Your task to perform on an android device: Search for the best rated TV on Target Image 0: 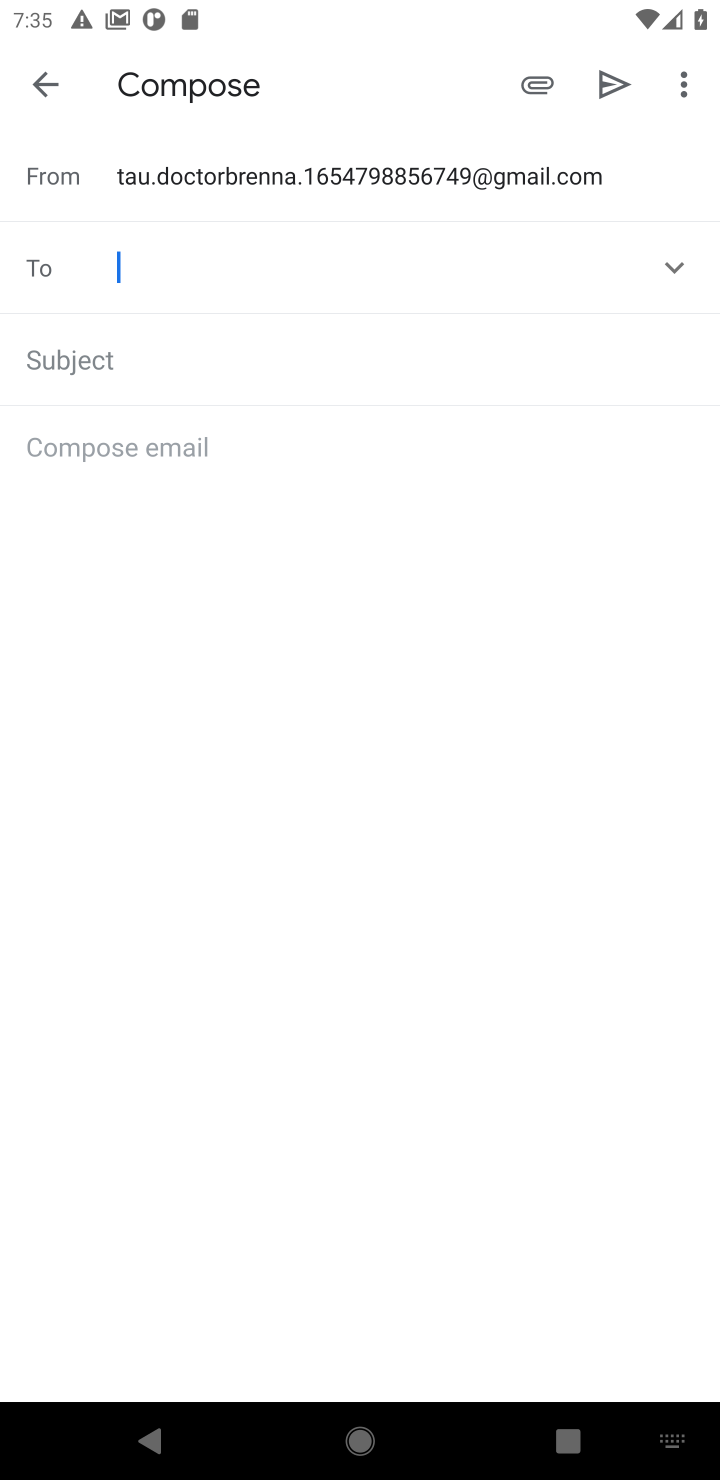
Step 0: press home button
Your task to perform on an android device: Search for the best rated TV on Target Image 1: 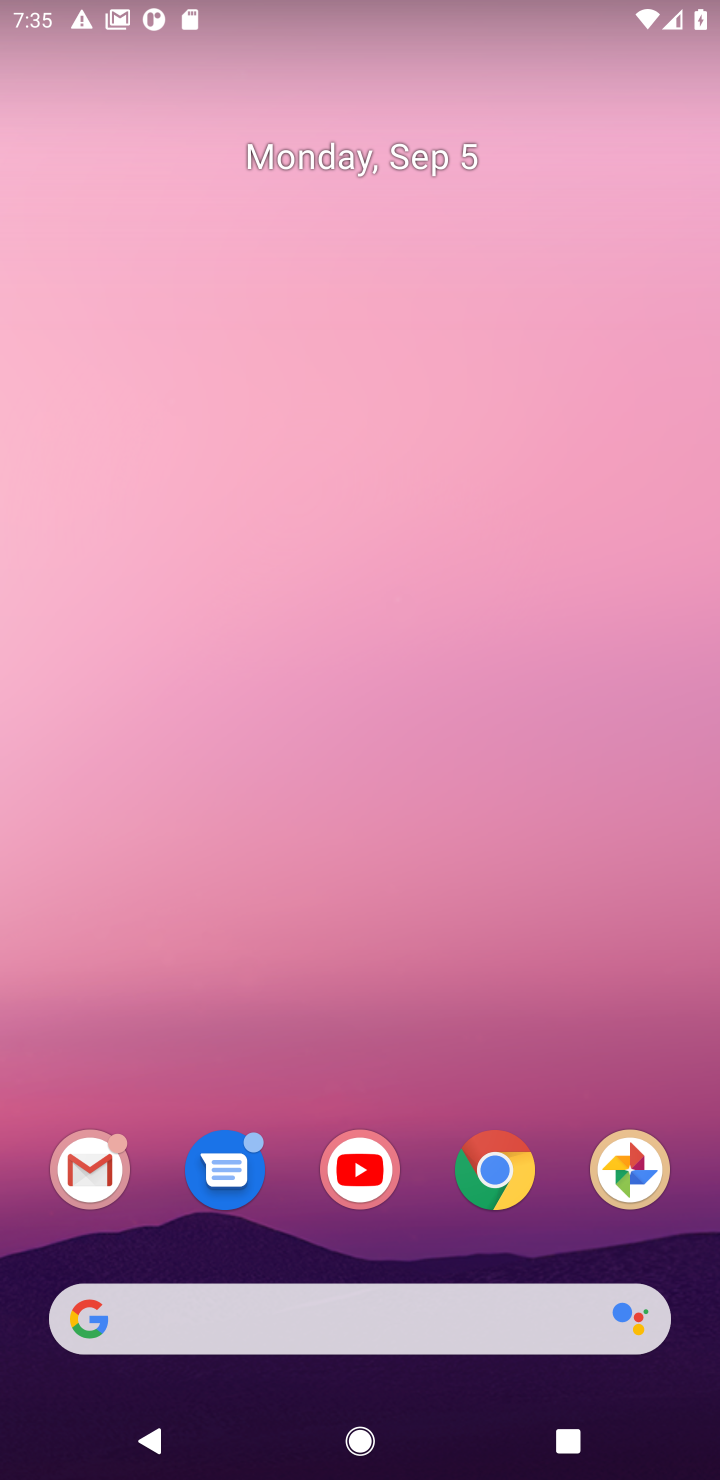
Step 1: click (499, 1157)
Your task to perform on an android device: Search for the best rated TV on Target Image 2: 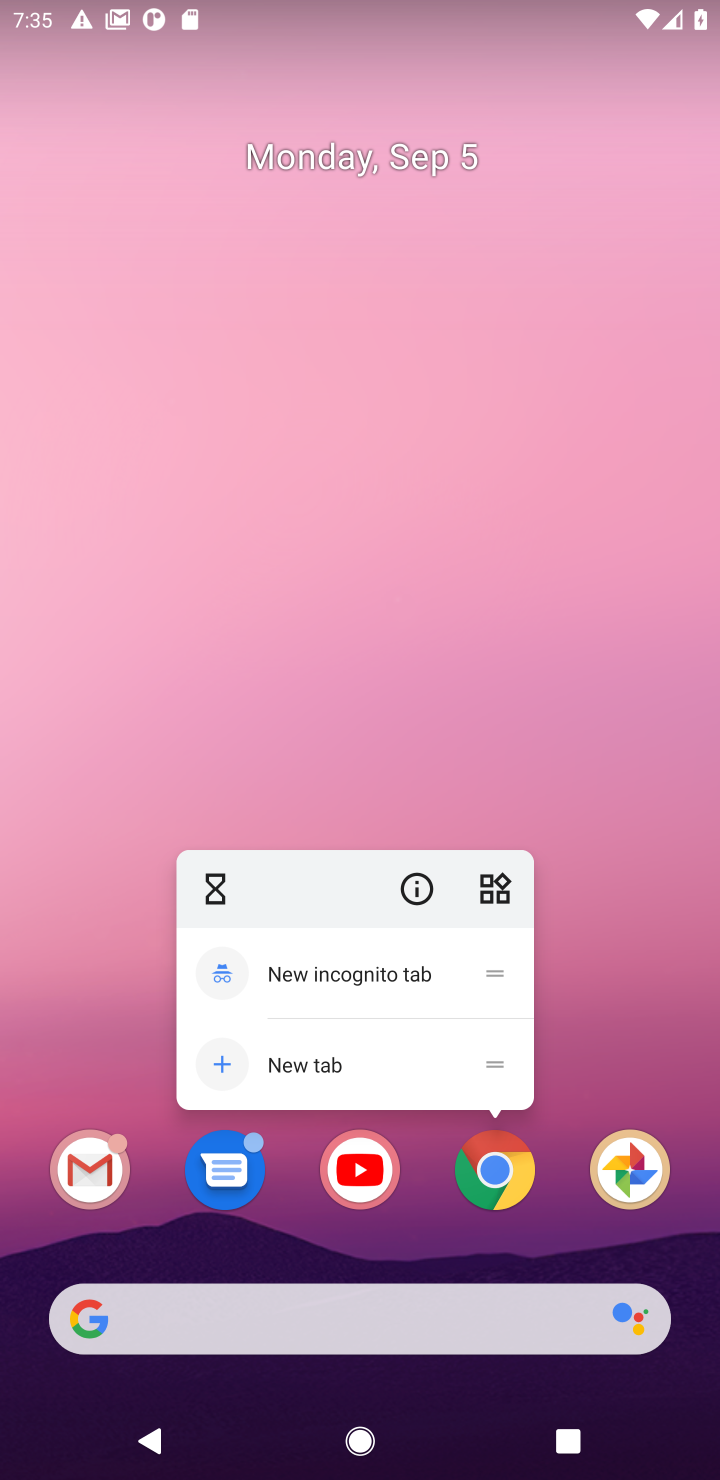
Step 2: click (499, 1169)
Your task to perform on an android device: Search for the best rated TV on Target Image 3: 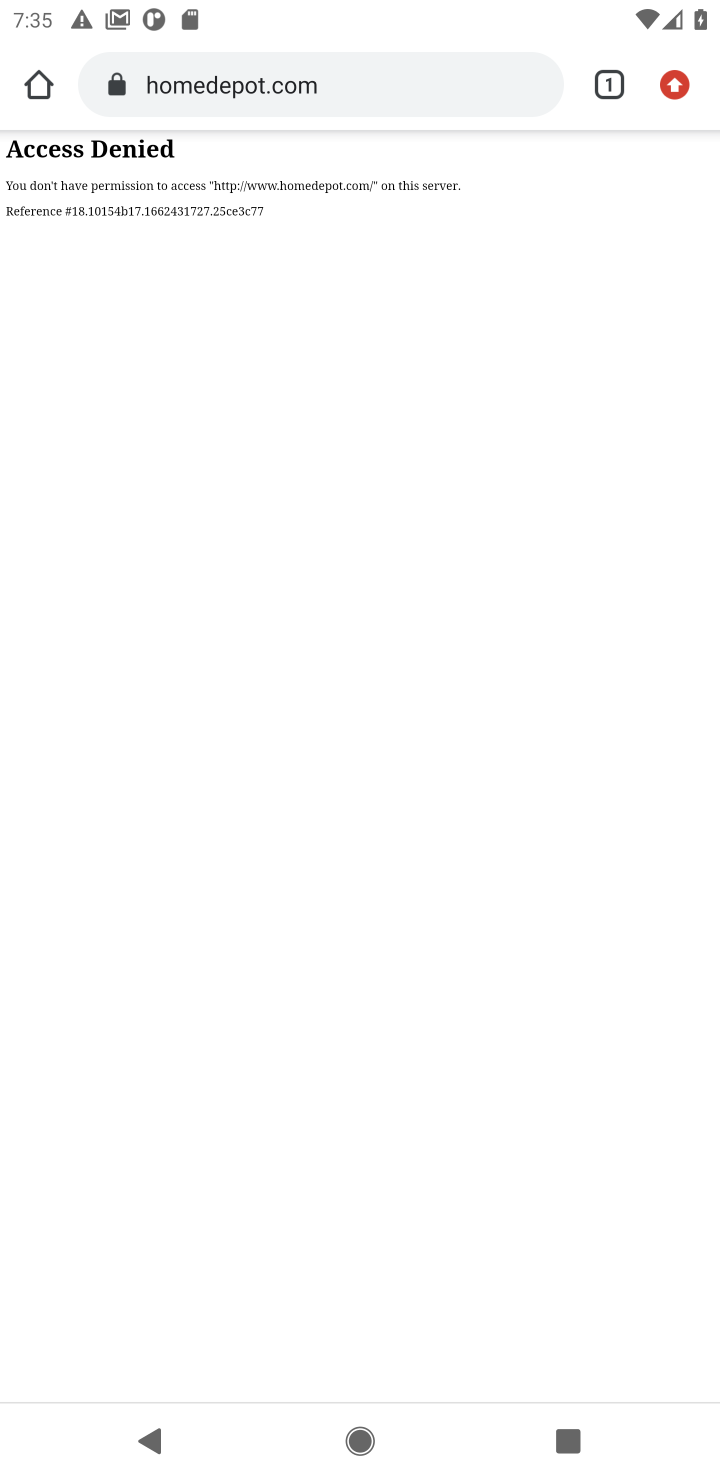
Step 3: click (240, 57)
Your task to perform on an android device: Search for the best rated TV on Target Image 4: 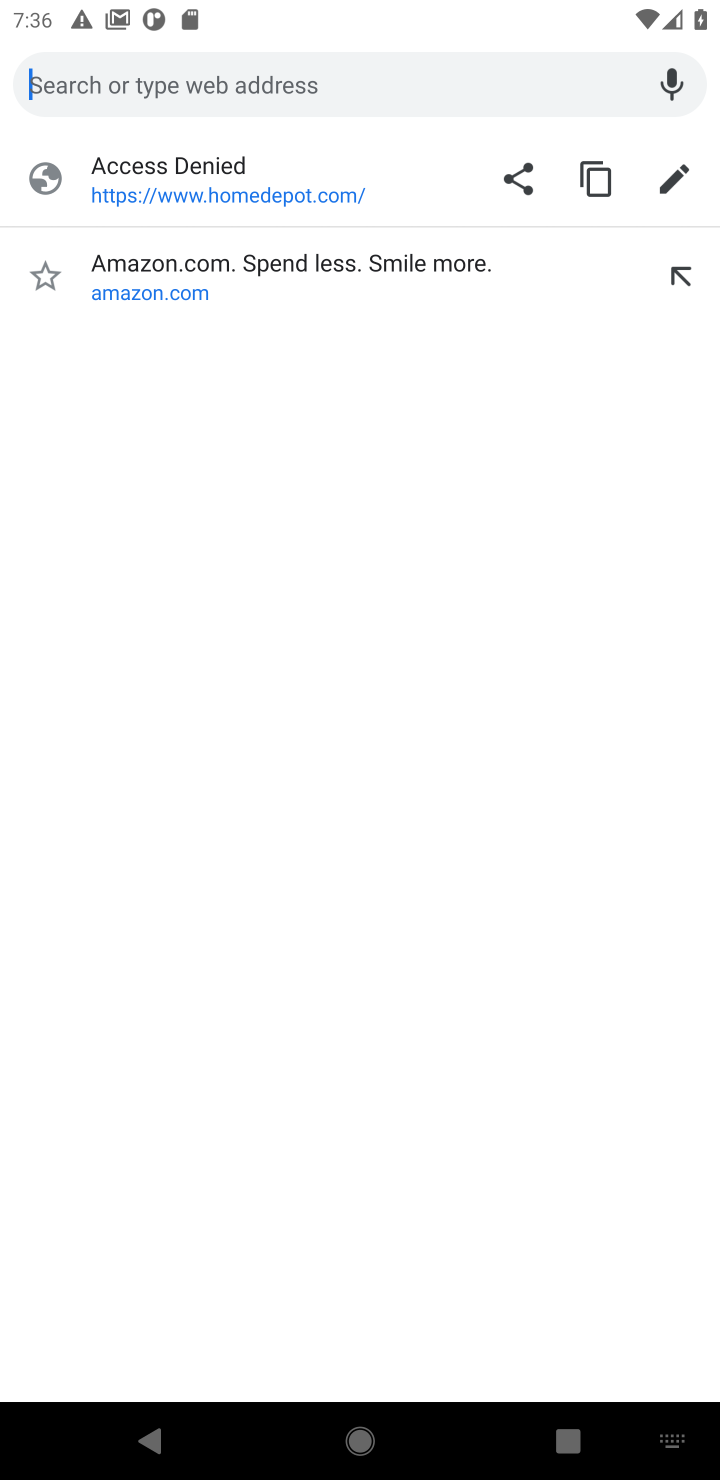
Step 4: type "target"
Your task to perform on an android device: Search for the best rated TV on Target Image 5: 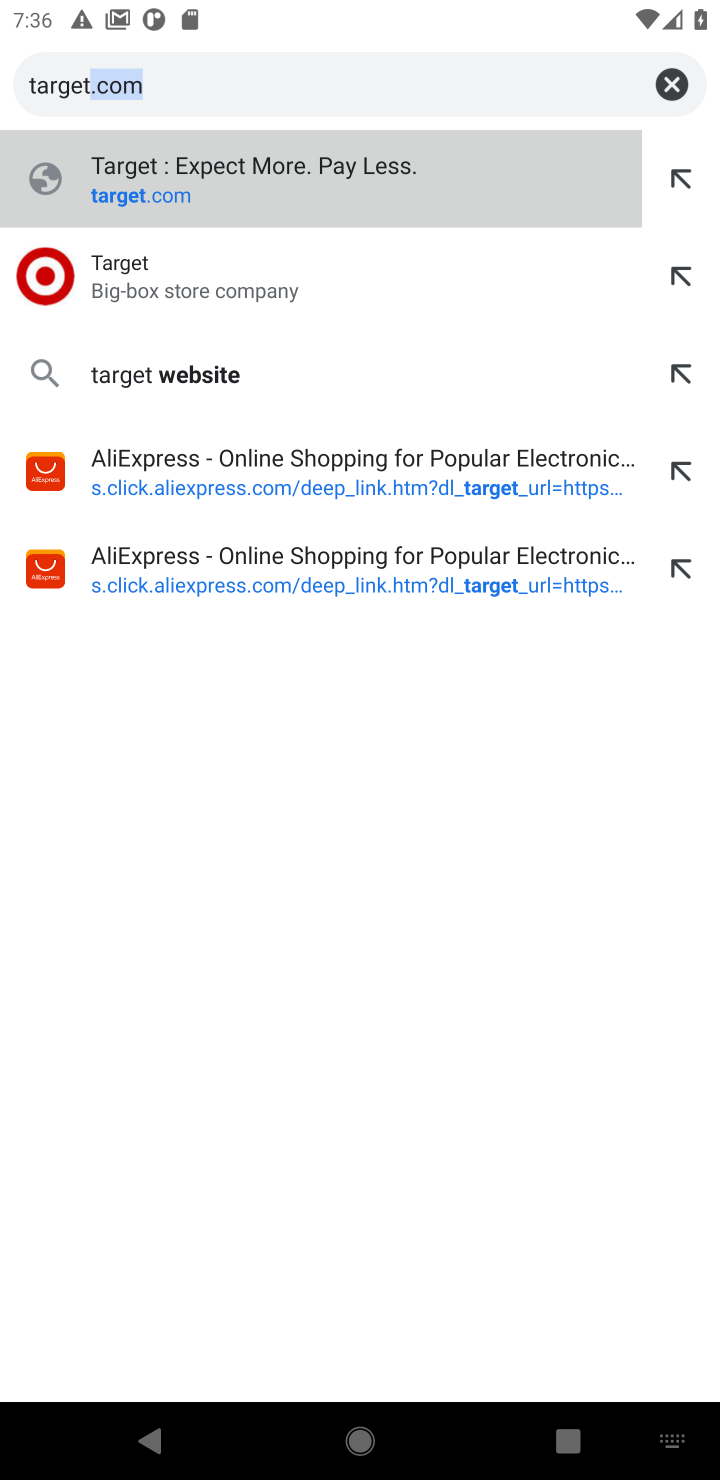
Step 5: click (227, 195)
Your task to perform on an android device: Search for the best rated TV on Target Image 6: 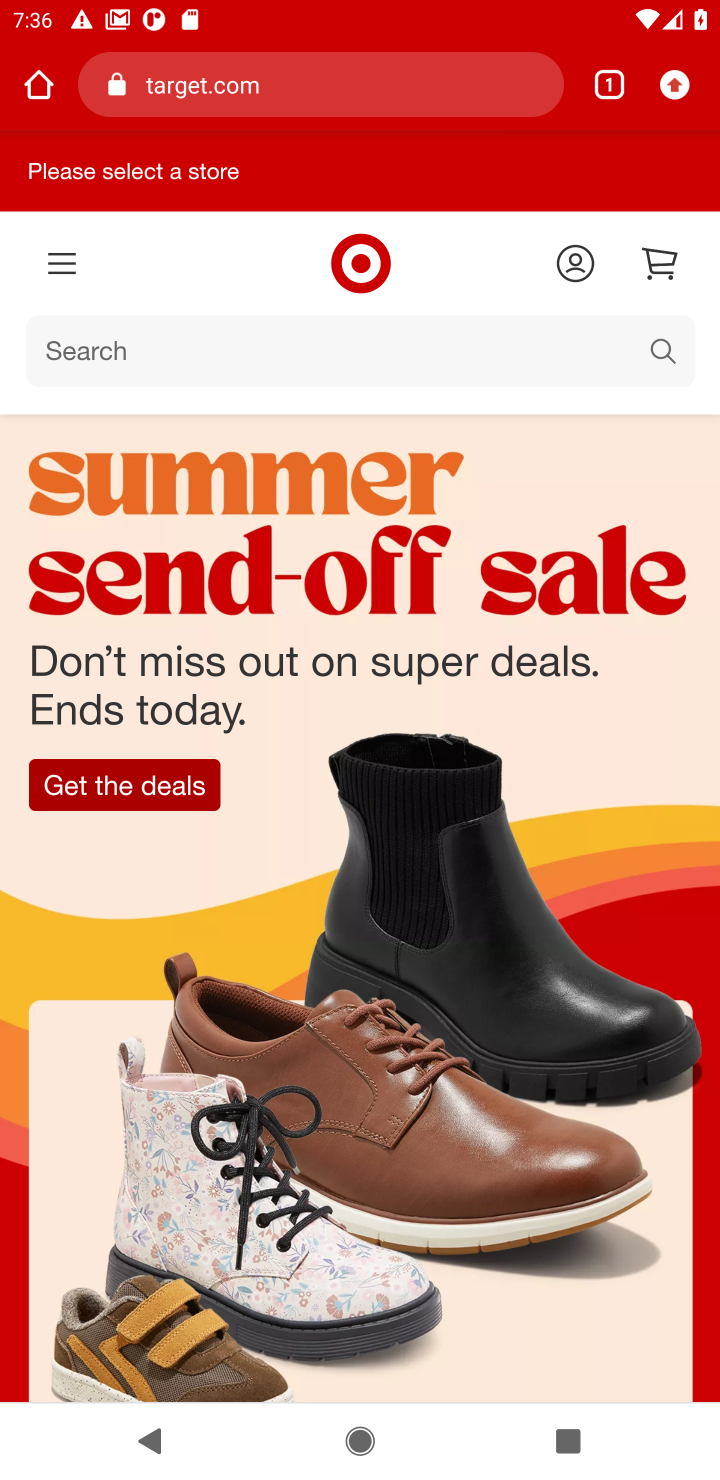
Step 6: click (497, 352)
Your task to perform on an android device: Search for the best rated TV on Target Image 7: 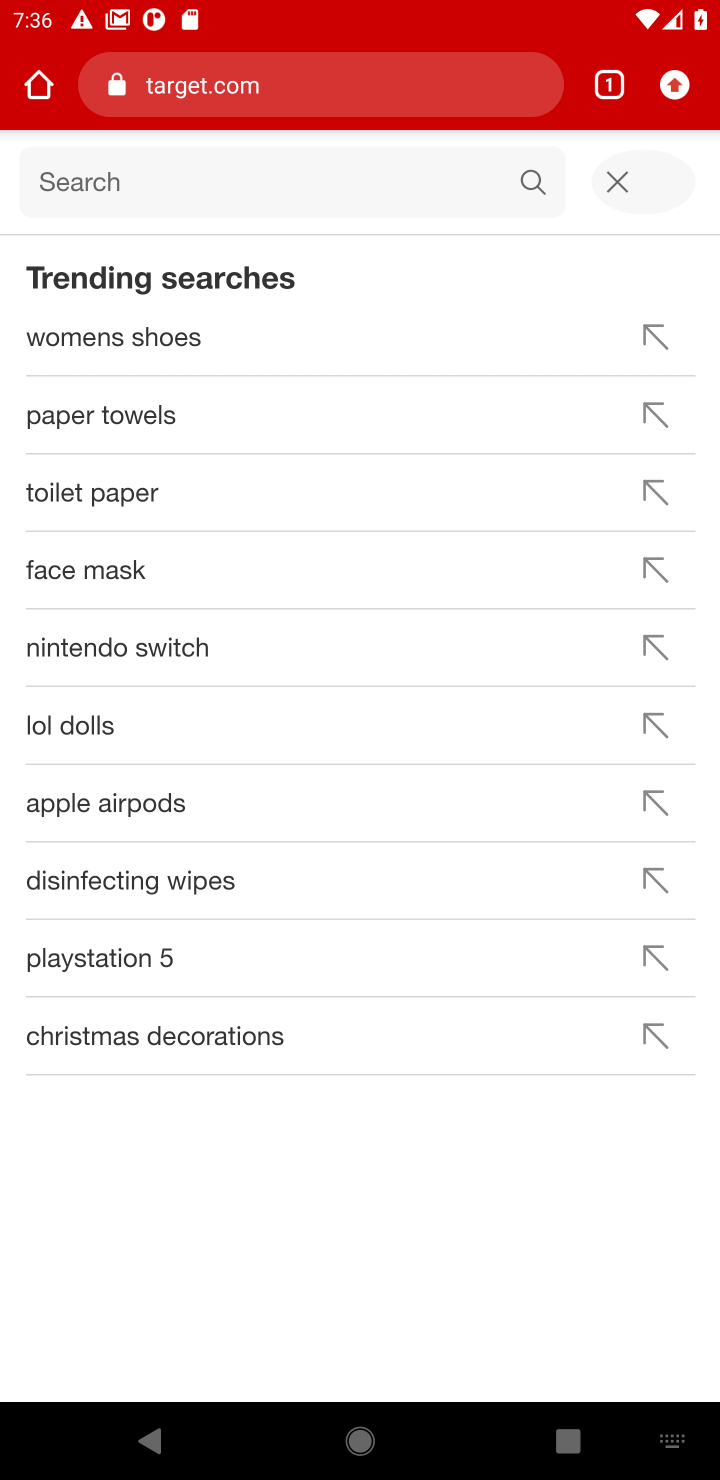
Step 7: type "the best rated TV"
Your task to perform on an android device: Search for the best rated TV on Target Image 8: 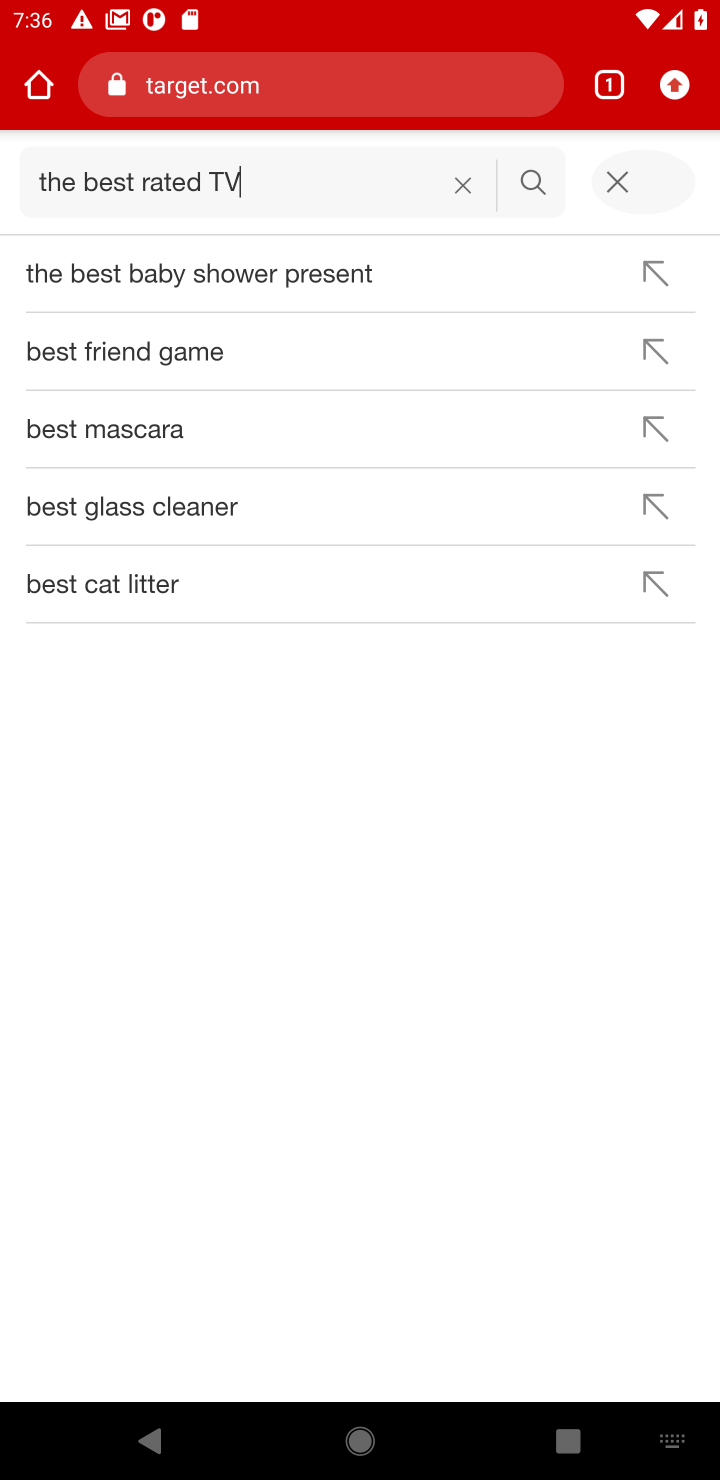
Step 8: click (528, 184)
Your task to perform on an android device: Search for the best rated TV on Target Image 9: 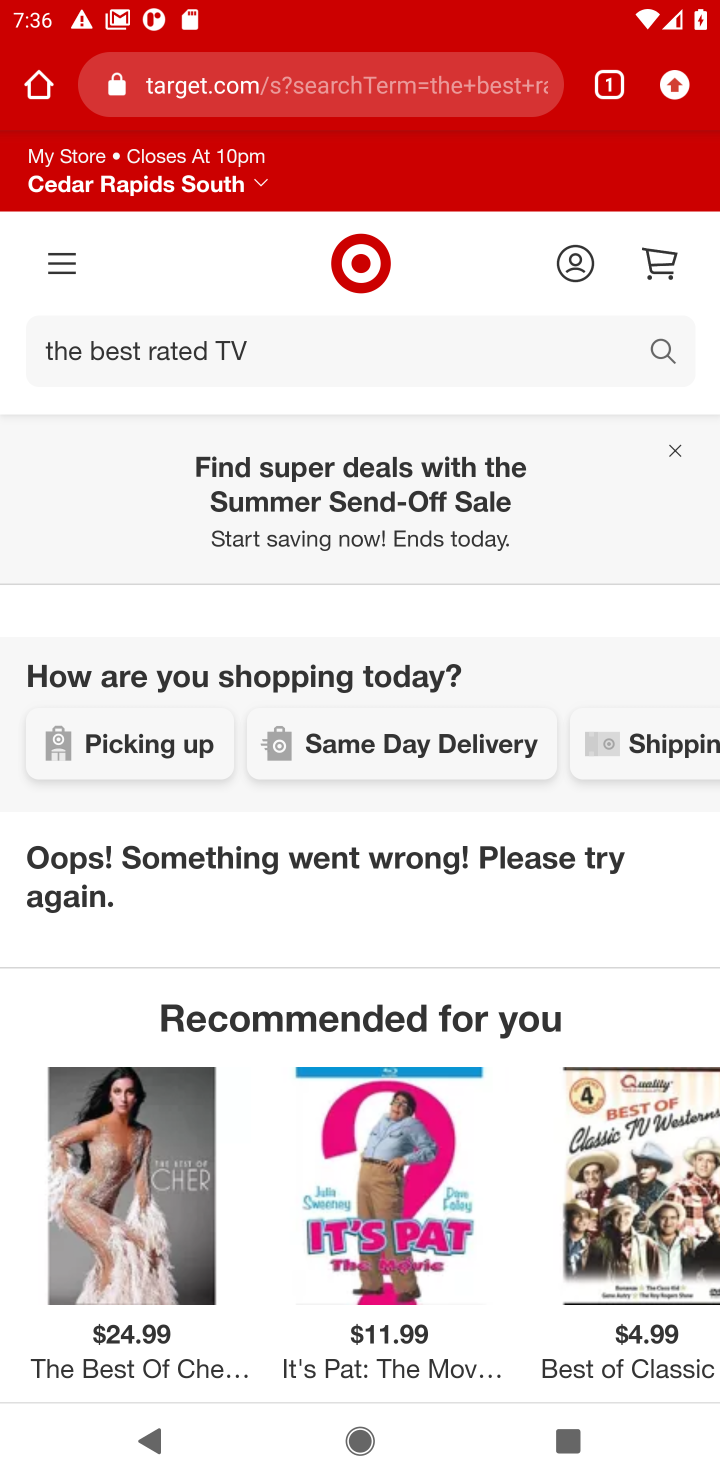
Step 9: task complete